Your task to perform on an android device: Go to Google Image 0: 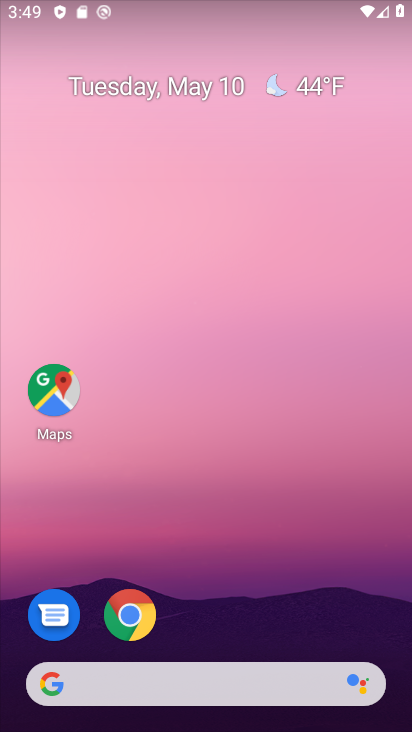
Step 0: drag from (213, 726) to (179, 213)
Your task to perform on an android device: Go to Google Image 1: 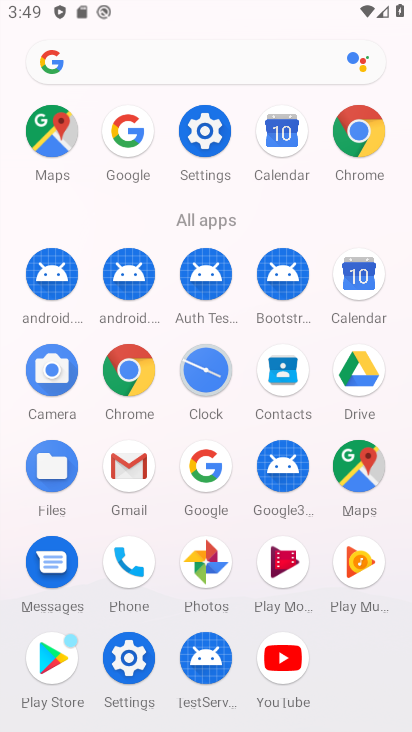
Step 1: click (200, 459)
Your task to perform on an android device: Go to Google Image 2: 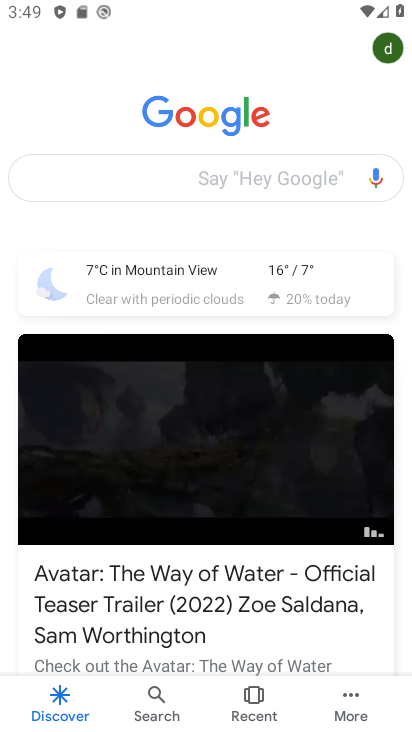
Step 2: task complete